Your task to perform on an android device: turn on the 24-hour format for clock Image 0: 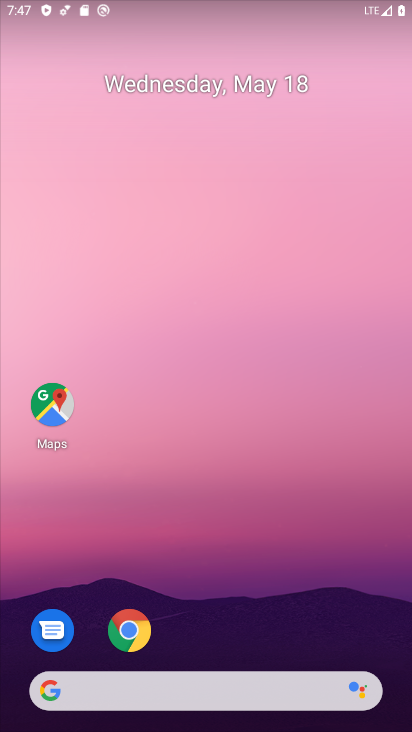
Step 0: drag from (144, 690) to (326, 146)
Your task to perform on an android device: turn on the 24-hour format for clock Image 1: 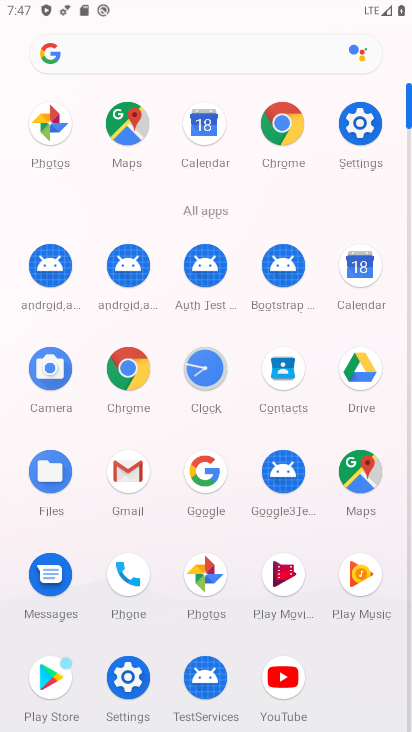
Step 1: click (209, 374)
Your task to perform on an android device: turn on the 24-hour format for clock Image 2: 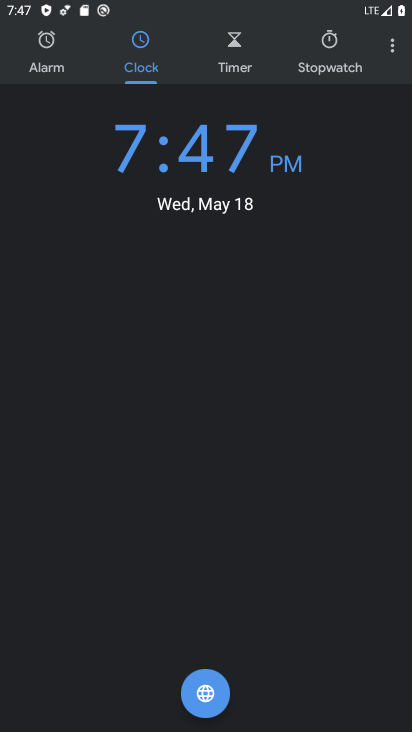
Step 2: click (394, 48)
Your task to perform on an android device: turn on the 24-hour format for clock Image 3: 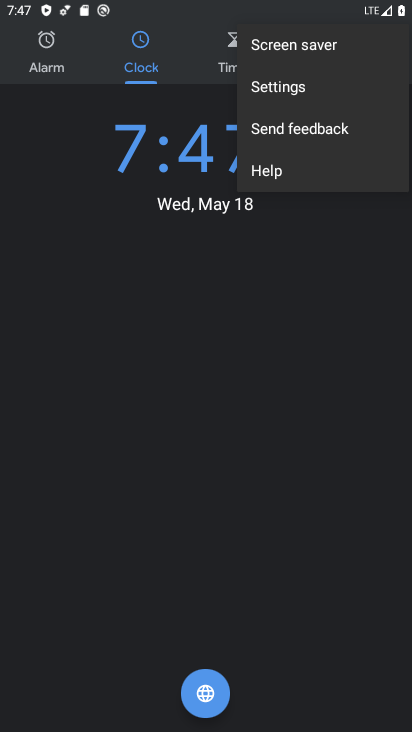
Step 3: click (277, 94)
Your task to perform on an android device: turn on the 24-hour format for clock Image 4: 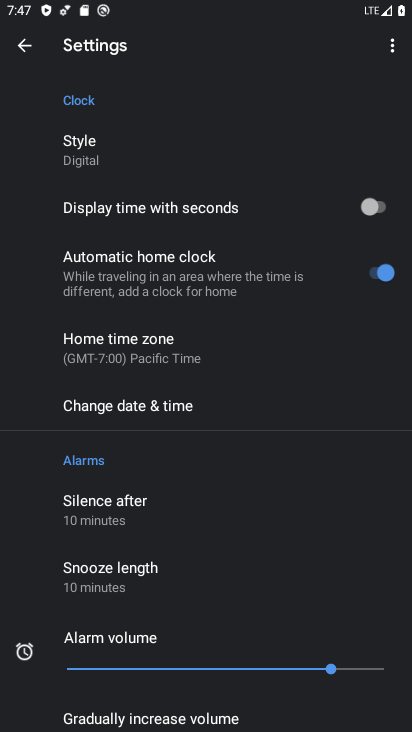
Step 4: click (166, 405)
Your task to perform on an android device: turn on the 24-hour format for clock Image 5: 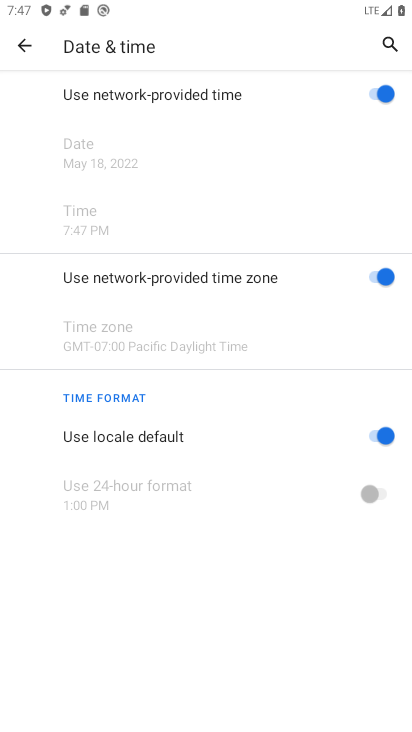
Step 5: click (373, 432)
Your task to perform on an android device: turn on the 24-hour format for clock Image 6: 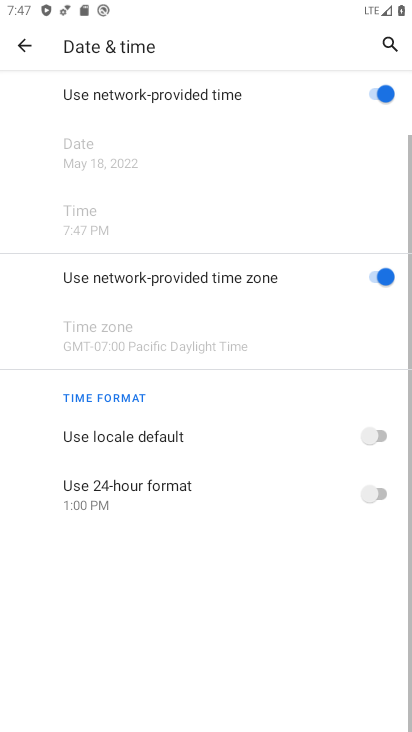
Step 6: click (382, 496)
Your task to perform on an android device: turn on the 24-hour format for clock Image 7: 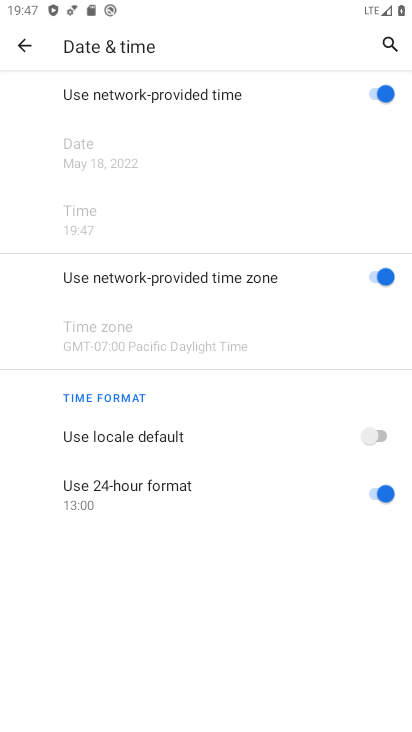
Step 7: task complete